Your task to perform on an android device: set the stopwatch Image 0: 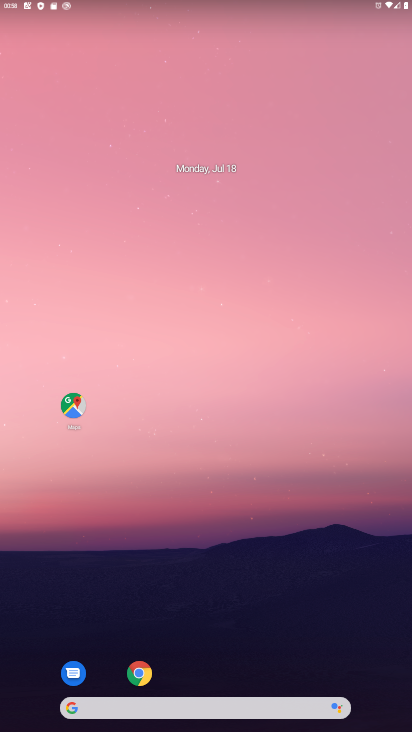
Step 0: drag from (221, 668) to (201, 201)
Your task to perform on an android device: set the stopwatch Image 1: 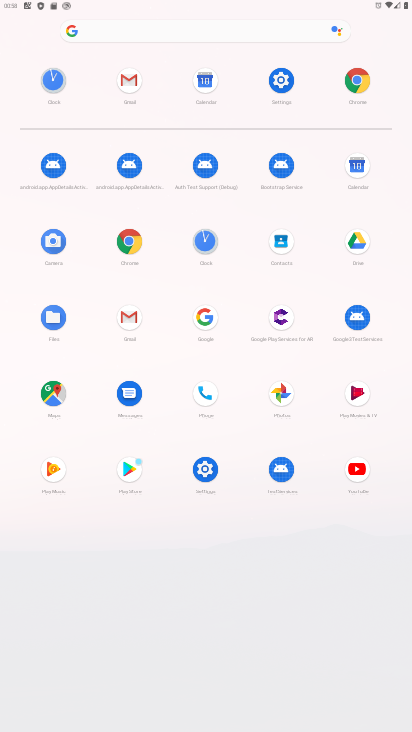
Step 1: click (51, 96)
Your task to perform on an android device: set the stopwatch Image 2: 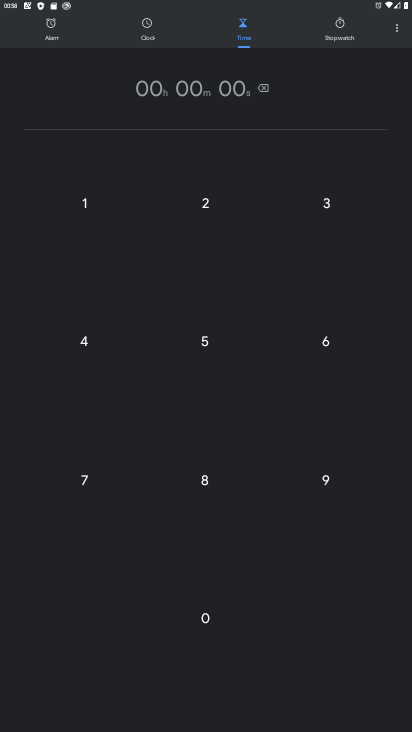
Step 2: click (386, 36)
Your task to perform on an android device: set the stopwatch Image 3: 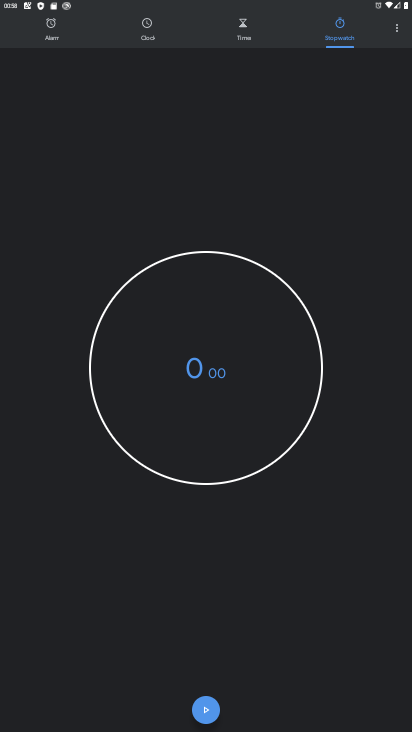
Step 3: task complete